Your task to perform on an android device: turn on the 24-hour format for clock Image 0: 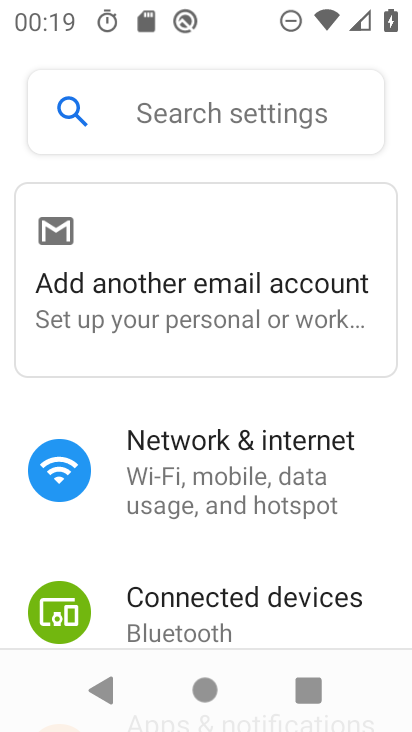
Step 0: press home button
Your task to perform on an android device: turn on the 24-hour format for clock Image 1: 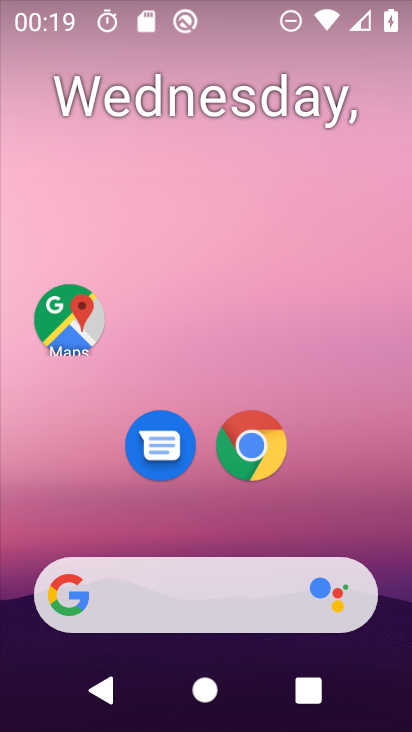
Step 1: drag from (265, 499) to (278, 2)
Your task to perform on an android device: turn on the 24-hour format for clock Image 2: 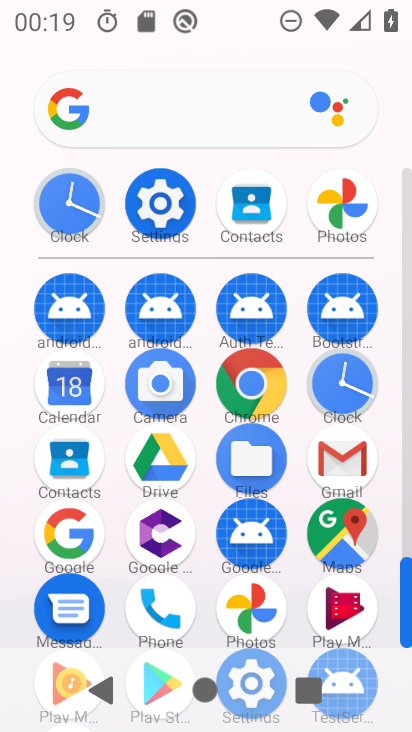
Step 2: click (344, 385)
Your task to perform on an android device: turn on the 24-hour format for clock Image 3: 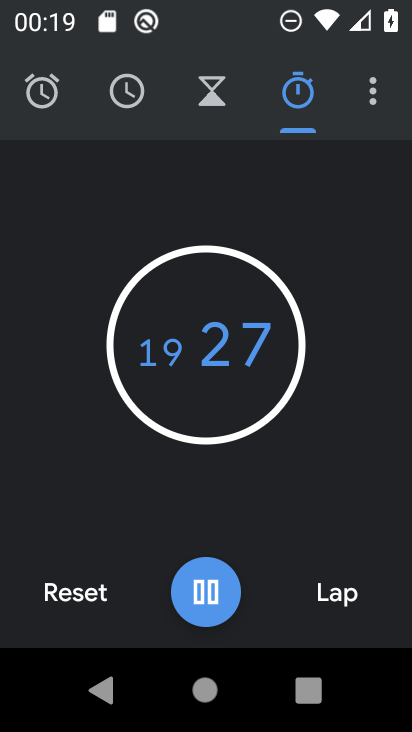
Step 3: click (364, 90)
Your task to perform on an android device: turn on the 24-hour format for clock Image 4: 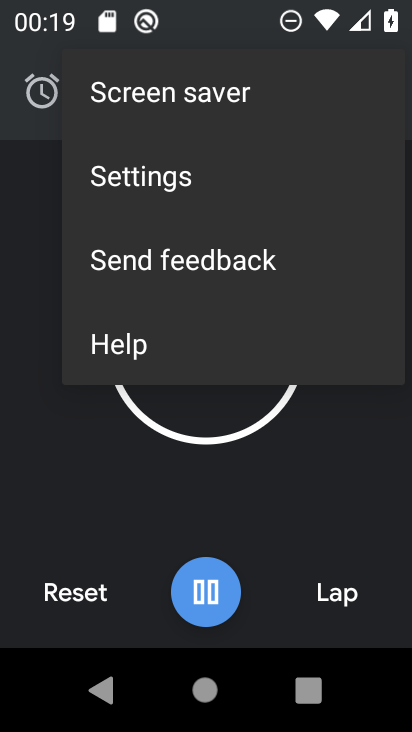
Step 4: click (110, 162)
Your task to perform on an android device: turn on the 24-hour format for clock Image 5: 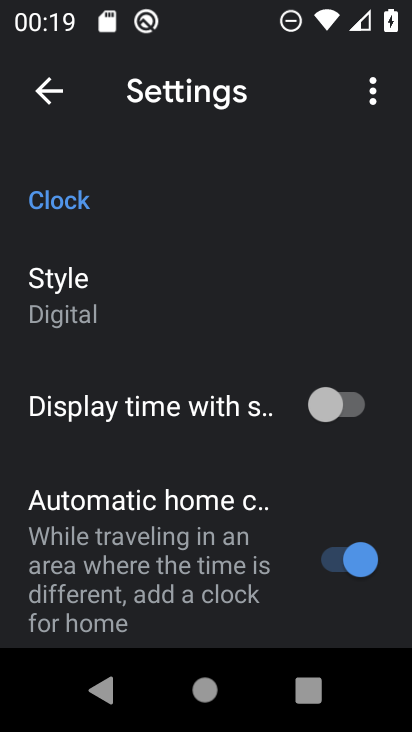
Step 5: drag from (183, 530) to (244, 102)
Your task to perform on an android device: turn on the 24-hour format for clock Image 6: 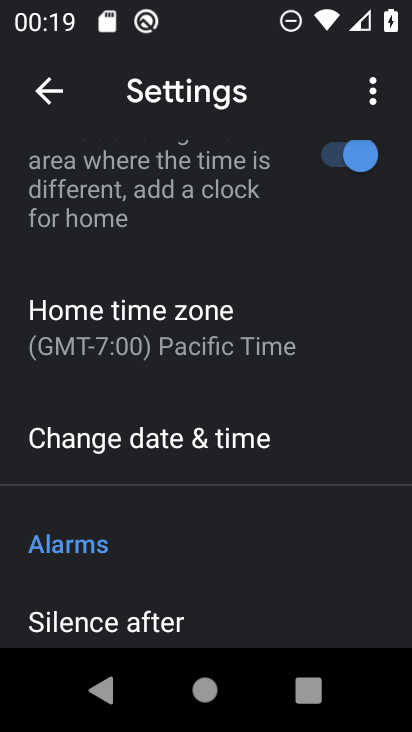
Step 6: click (152, 425)
Your task to perform on an android device: turn on the 24-hour format for clock Image 7: 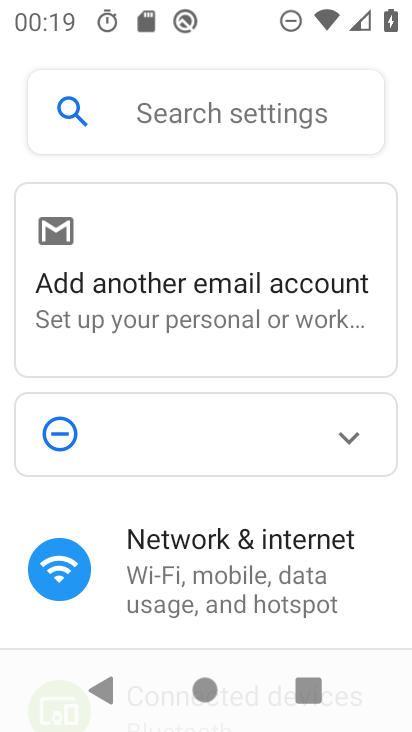
Step 7: drag from (290, 455) to (410, 420)
Your task to perform on an android device: turn on the 24-hour format for clock Image 8: 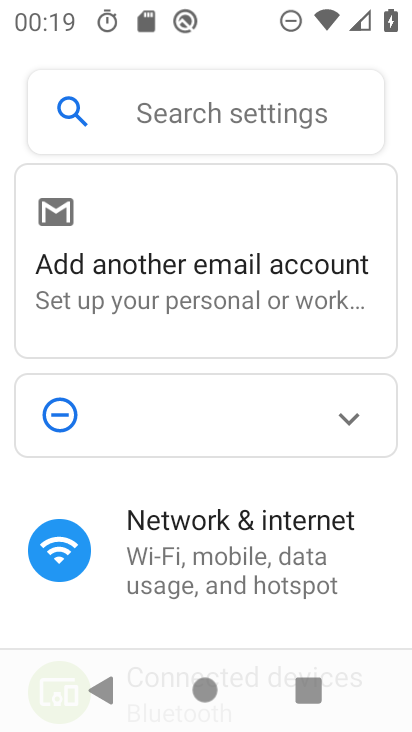
Step 8: drag from (330, 523) to (343, 234)
Your task to perform on an android device: turn on the 24-hour format for clock Image 9: 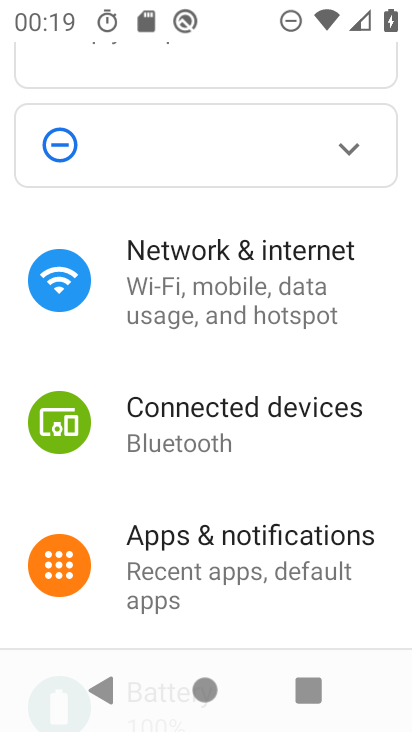
Step 9: drag from (270, 549) to (242, 268)
Your task to perform on an android device: turn on the 24-hour format for clock Image 10: 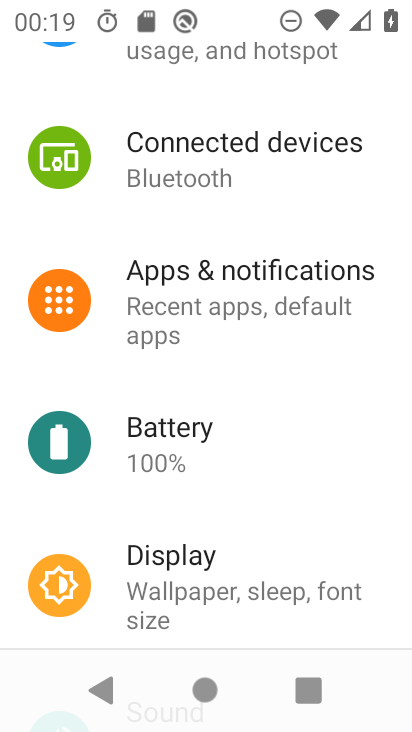
Step 10: drag from (159, 502) to (201, 168)
Your task to perform on an android device: turn on the 24-hour format for clock Image 11: 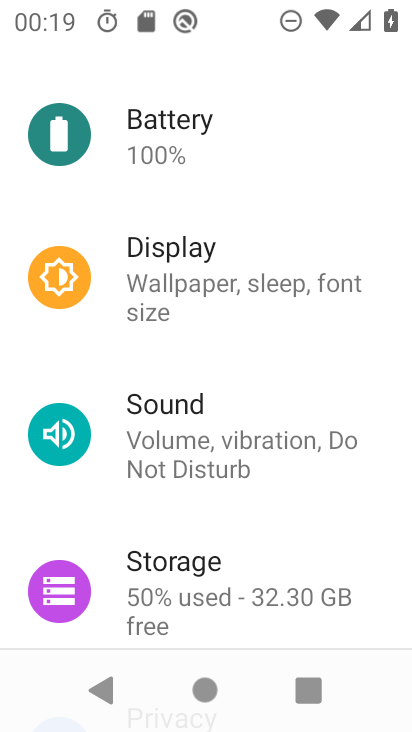
Step 11: drag from (216, 580) to (238, 186)
Your task to perform on an android device: turn on the 24-hour format for clock Image 12: 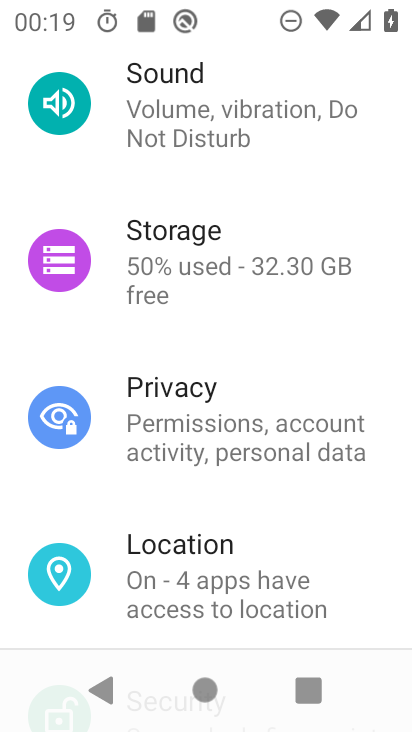
Step 12: drag from (96, 592) to (220, 271)
Your task to perform on an android device: turn on the 24-hour format for clock Image 13: 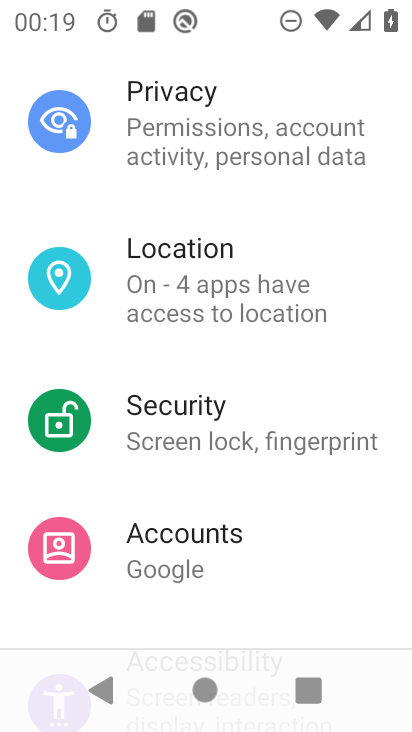
Step 13: drag from (268, 554) to (289, 134)
Your task to perform on an android device: turn on the 24-hour format for clock Image 14: 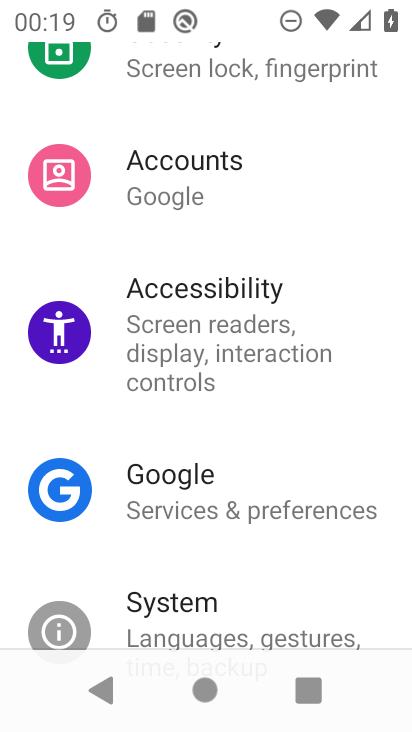
Step 14: drag from (312, 546) to (271, 144)
Your task to perform on an android device: turn on the 24-hour format for clock Image 15: 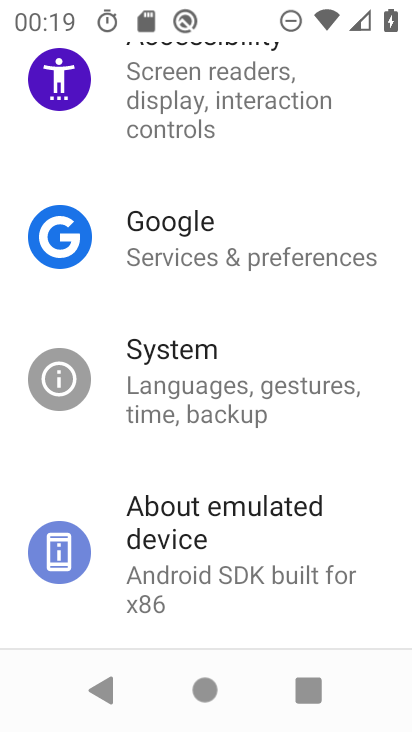
Step 15: click (262, 408)
Your task to perform on an android device: turn on the 24-hour format for clock Image 16: 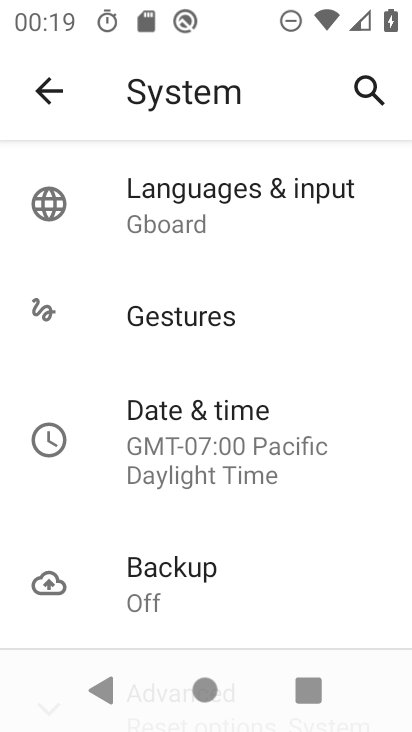
Step 16: click (244, 459)
Your task to perform on an android device: turn on the 24-hour format for clock Image 17: 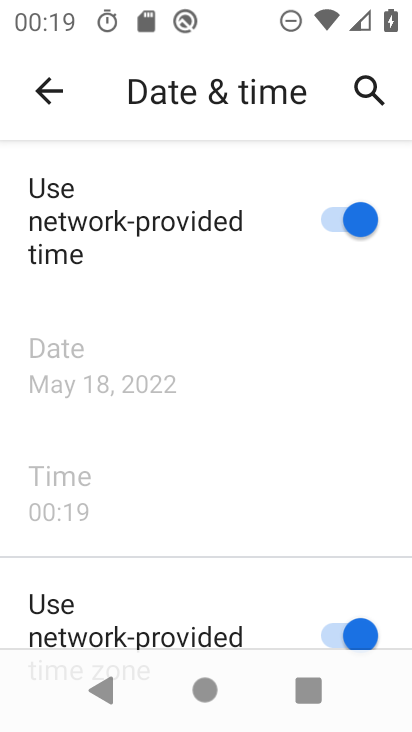
Step 17: task complete